Your task to perform on an android device: change notifications settings Image 0: 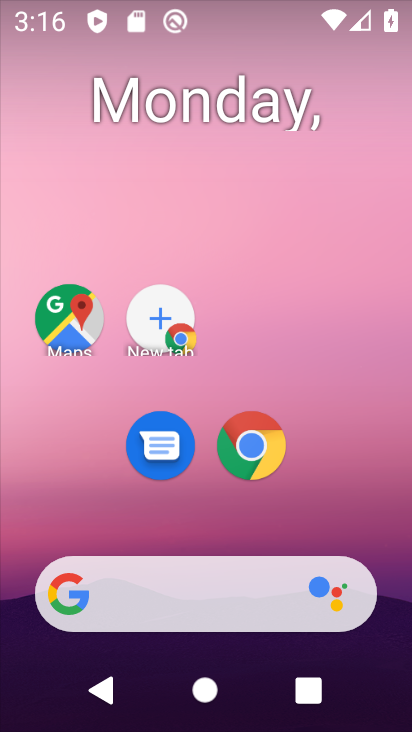
Step 0: press home button
Your task to perform on an android device: change notifications settings Image 1: 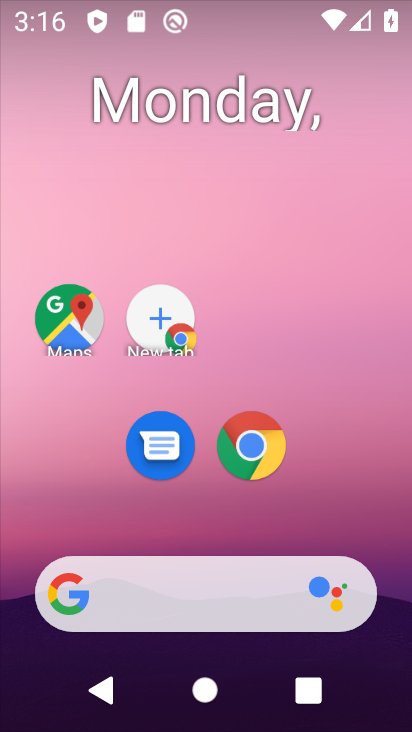
Step 1: drag from (209, 512) to (220, 29)
Your task to perform on an android device: change notifications settings Image 2: 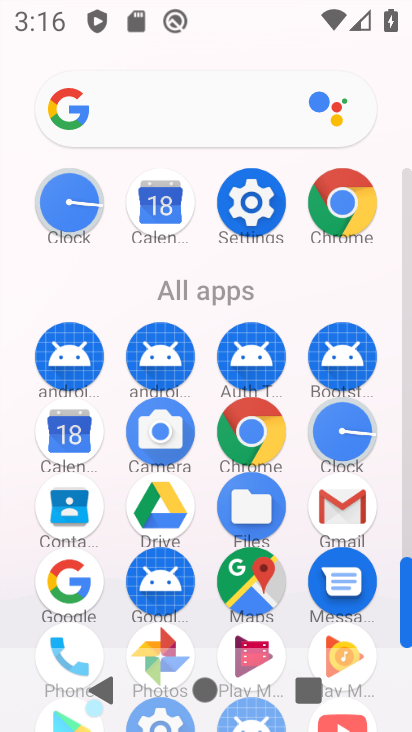
Step 2: click (254, 191)
Your task to perform on an android device: change notifications settings Image 3: 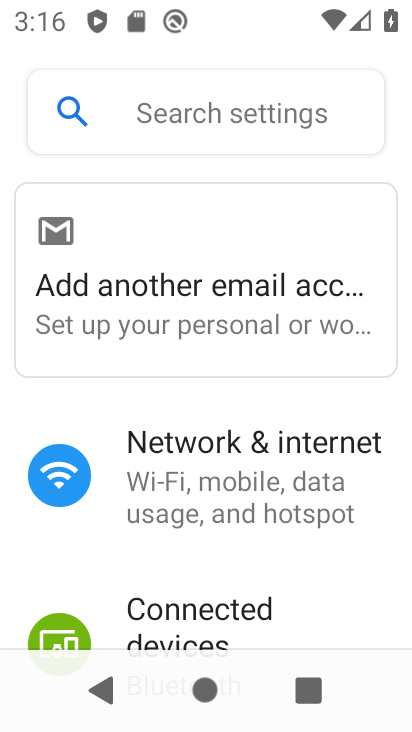
Step 3: drag from (229, 566) to (226, 86)
Your task to perform on an android device: change notifications settings Image 4: 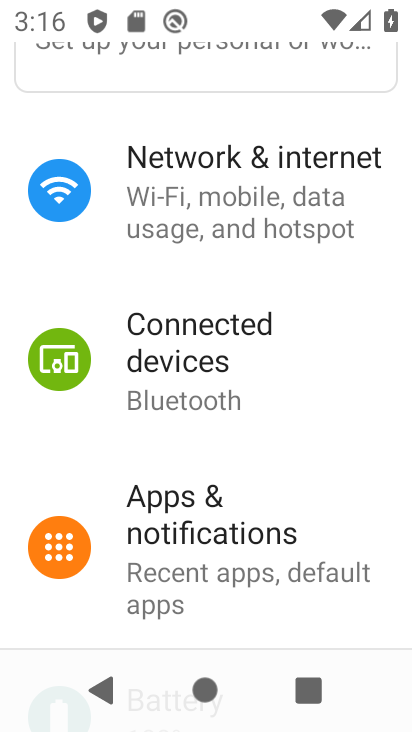
Step 4: click (201, 525)
Your task to perform on an android device: change notifications settings Image 5: 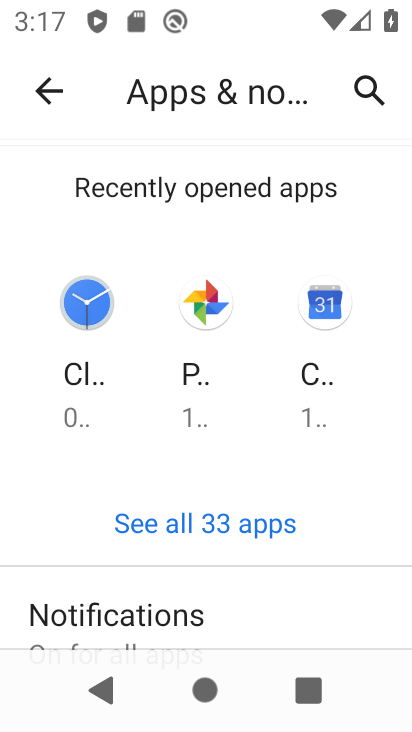
Step 5: drag from (227, 596) to (227, 290)
Your task to perform on an android device: change notifications settings Image 6: 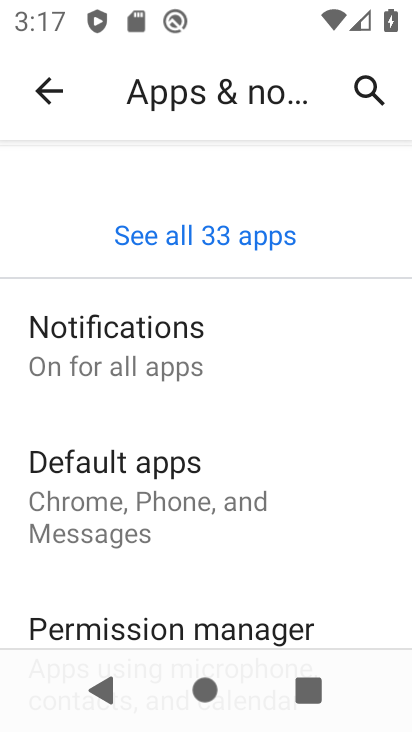
Step 6: click (200, 344)
Your task to perform on an android device: change notifications settings Image 7: 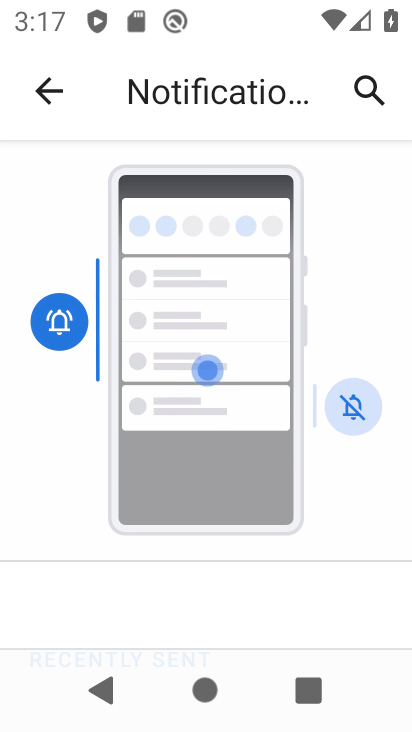
Step 7: drag from (199, 592) to (200, 159)
Your task to perform on an android device: change notifications settings Image 8: 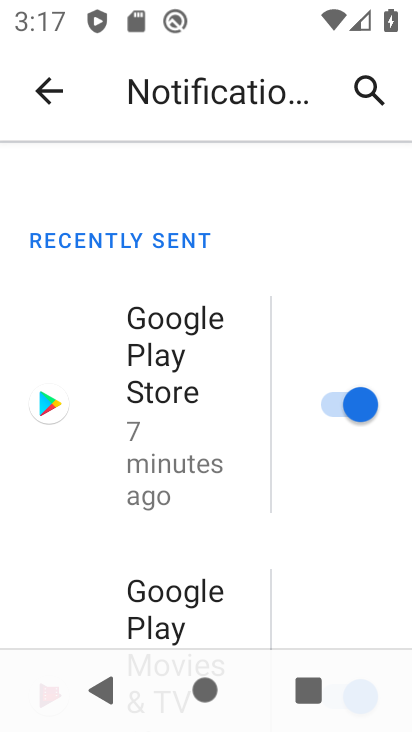
Step 8: drag from (237, 606) to (214, 113)
Your task to perform on an android device: change notifications settings Image 9: 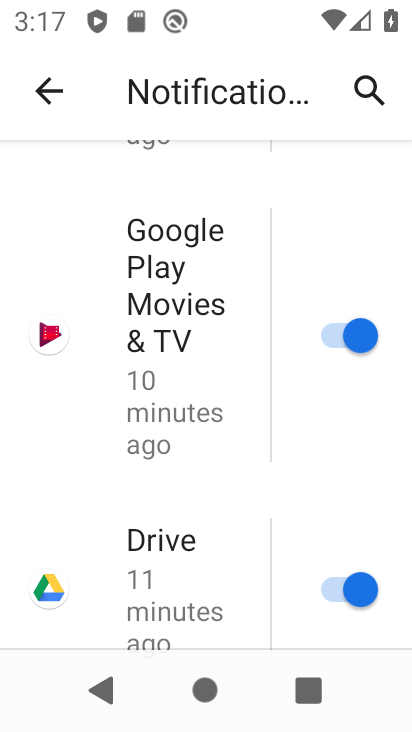
Step 9: drag from (220, 576) to (213, 144)
Your task to perform on an android device: change notifications settings Image 10: 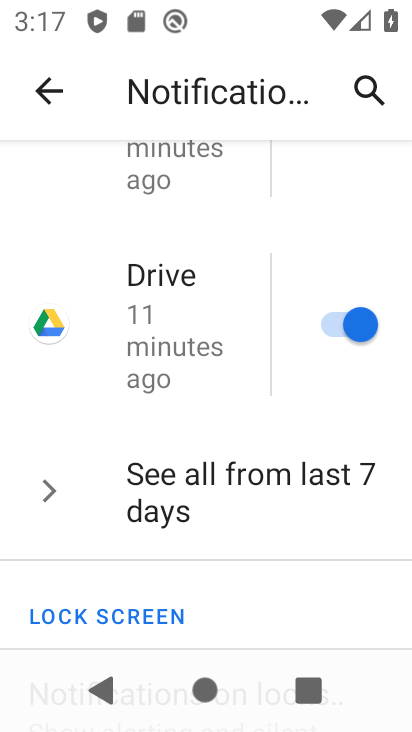
Step 10: drag from (213, 570) to (212, 242)
Your task to perform on an android device: change notifications settings Image 11: 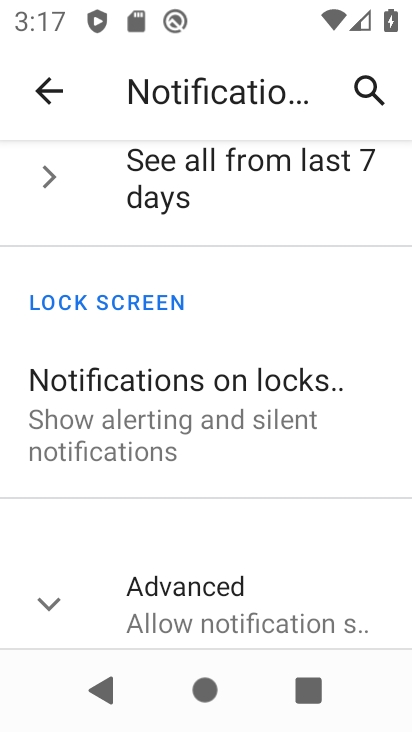
Step 11: drag from (175, 467) to (201, 660)
Your task to perform on an android device: change notifications settings Image 12: 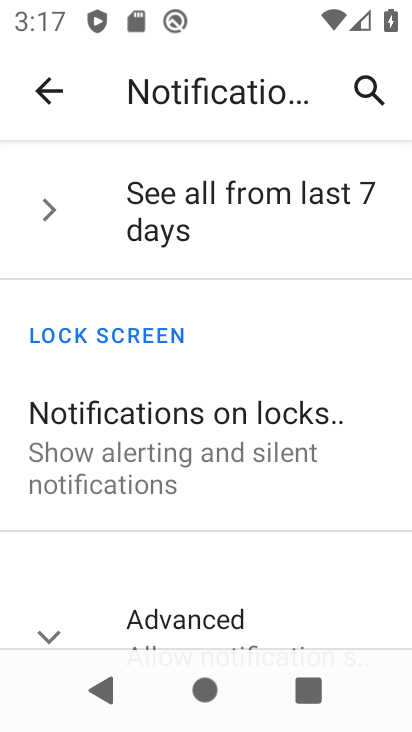
Step 12: drag from (195, 206) to (181, 667)
Your task to perform on an android device: change notifications settings Image 13: 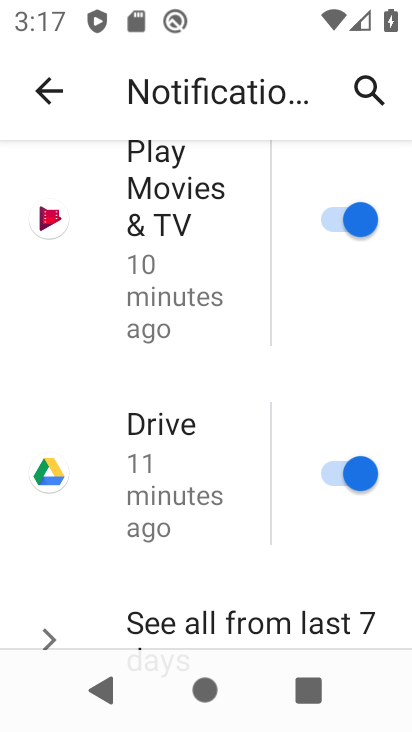
Step 13: click (341, 471)
Your task to perform on an android device: change notifications settings Image 14: 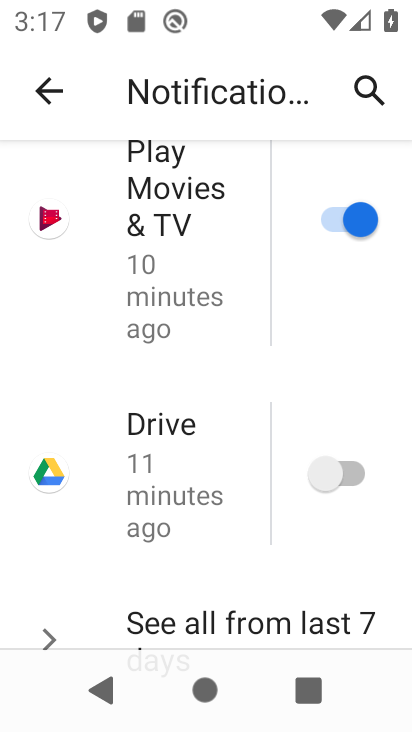
Step 14: click (331, 207)
Your task to perform on an android device: change notifications settings Image 15: 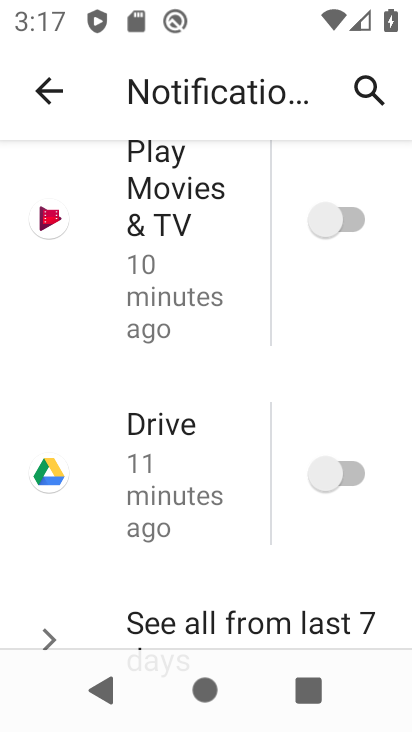
Step 15: drag from (200, 324) to (205, 639)
Your task to perform on an android device: change notifications settings Image 16: 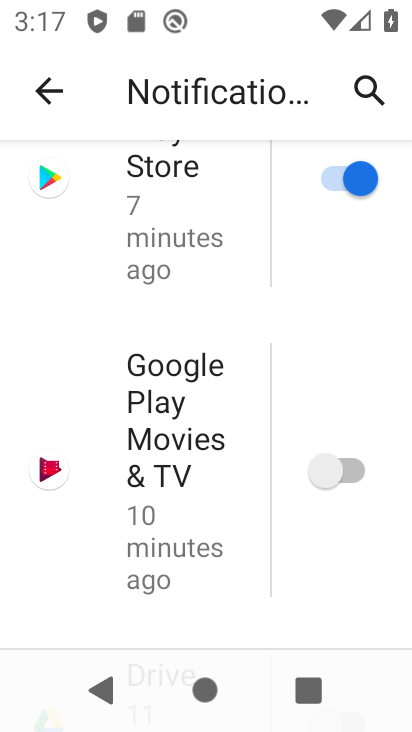
Step 16: click (335, 174)
Your task to perform on an android device: change notifications settings Image 17: 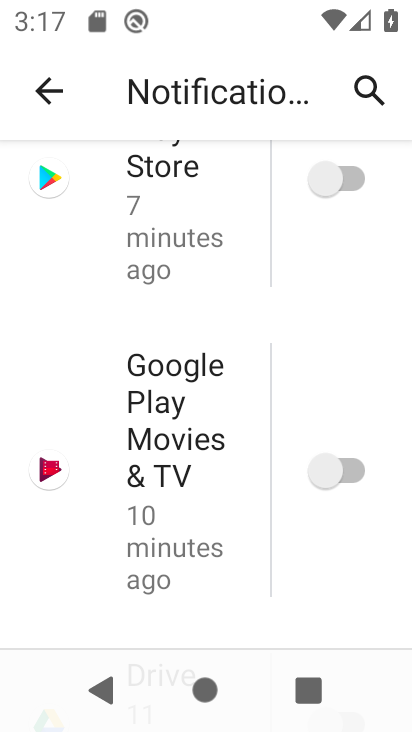
Step 17: drag from (231, 617) to (205, 167)
Your task to perform on an android device: change notifications settings Image 18: 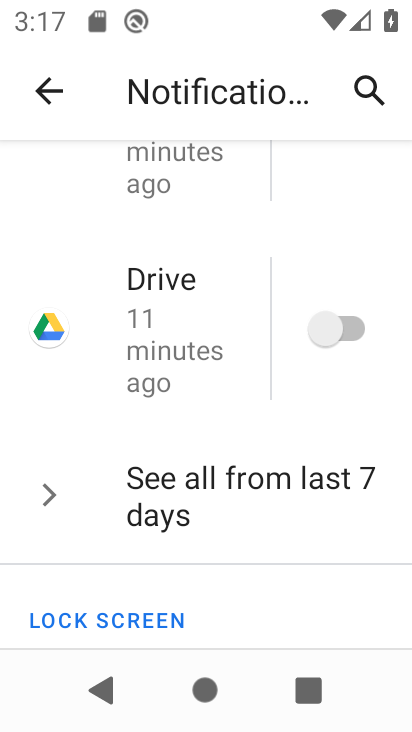
Step 18: drag from (200, 564) to (201, 51)
Your task to perform on an android device: change notifications settings Image 19: 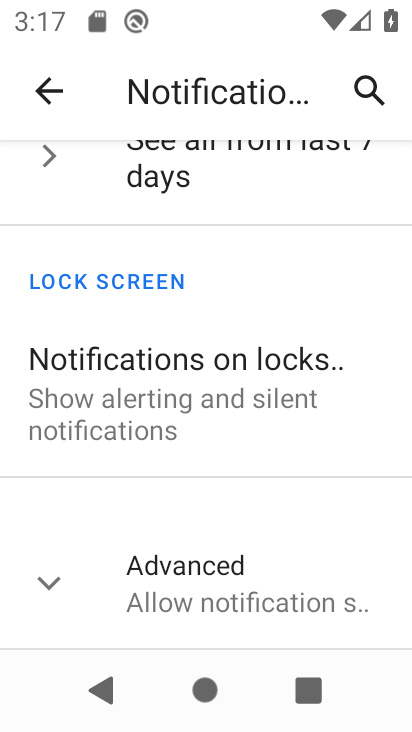
Step 19: click (177, 358)
Your task to perform on an android device: change notifications settings Image 20: 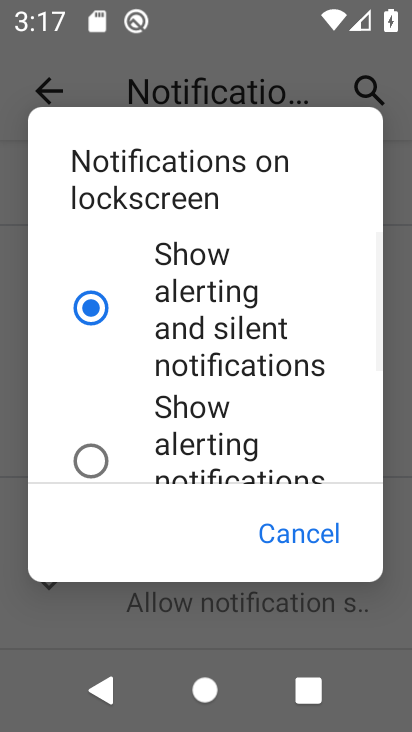
Step 20: click (88, 455)
Your task to perform on an android device: change notifications settings Image 21: 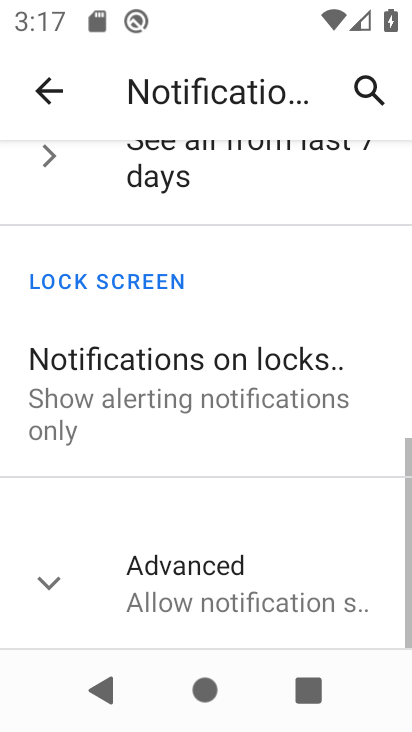
Step 21: drag from (175, 593) to (166, 471)
Your task to perform on an android device: change notifications settings Image 22: 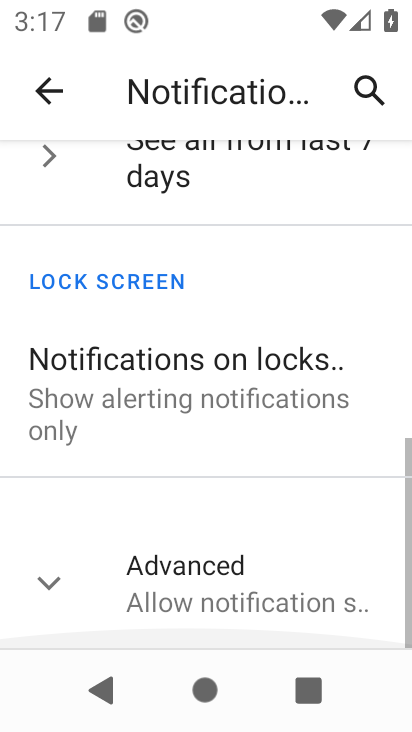
Step 22: click (28, 588)
Your task to perform on an android device: change notifications settings Image 23: 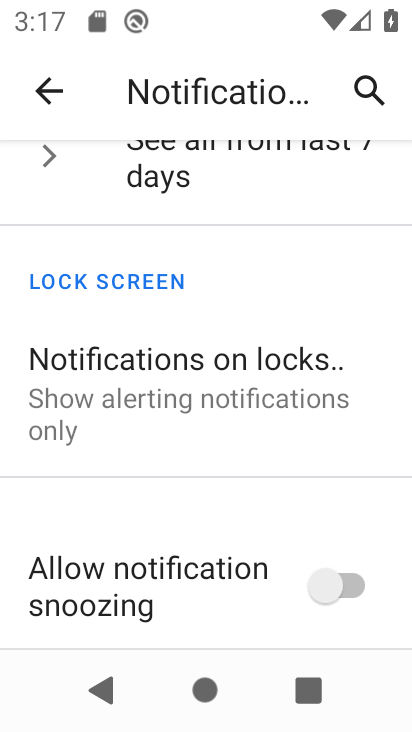
Step 23: click (347, 580)
Your task to perform on an android device: change notifications settings Image 24: 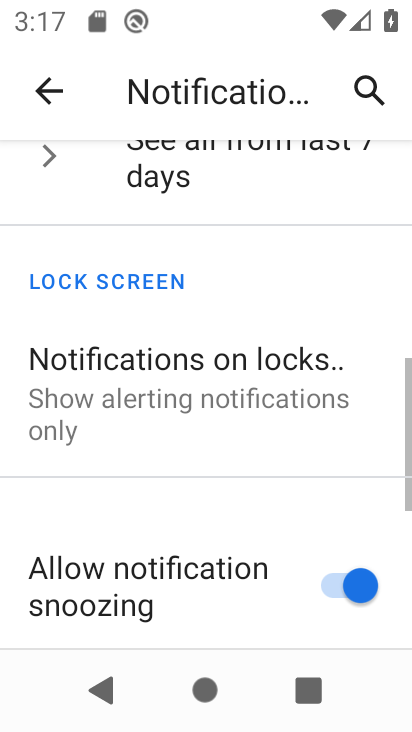
Step 24: task complete